Your task to perform on an android device: open sync settings in chrome Image 0: 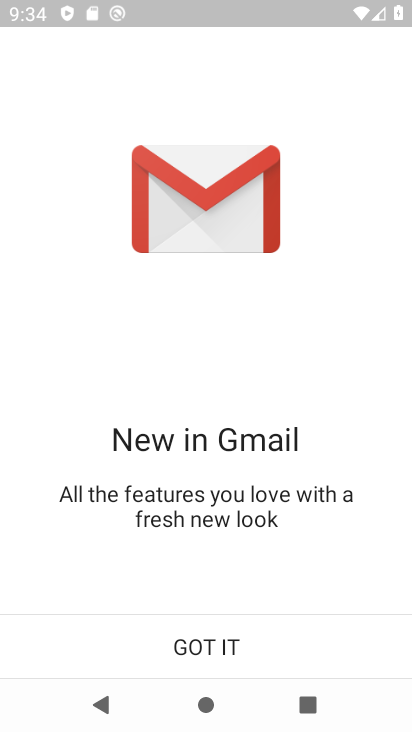
Step 0: press back button
Your task to perform on an android device: open sync settings in chrome Image 1: 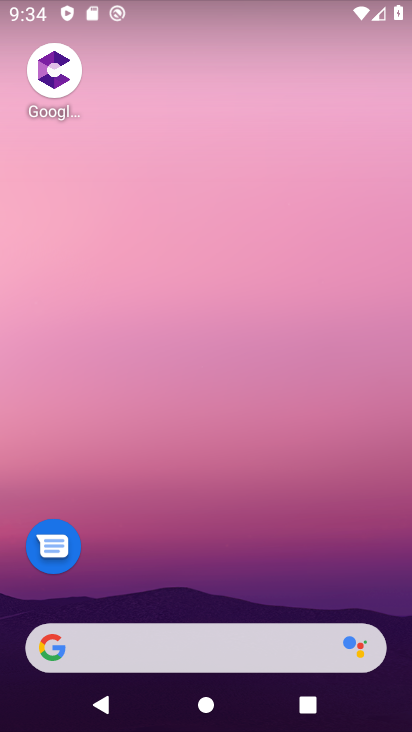
Step 1: drag from (205, 568) to (289, 69)
Your task to perform on an android device: open sync settings in chrome Image 2: 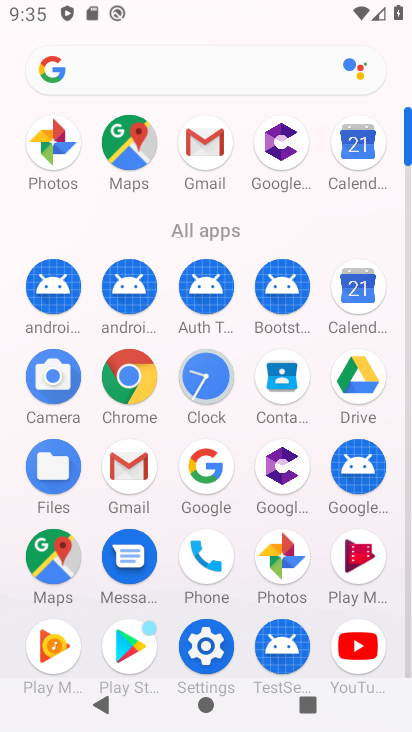
Step 2: click (128, 385)
Your task to perform on an android device: open sync settings in chrome Image 3: 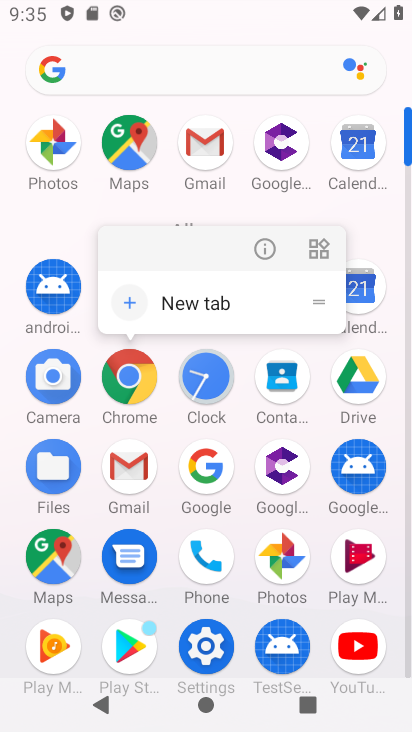
Step 3: click (129, 384)
Your task to perform on an android device: open sync settings in chrome Image 4: 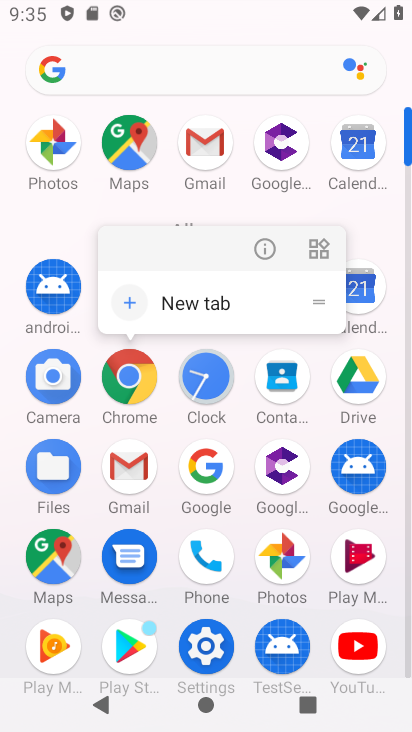
Step 4: click (131, 381)
Your task to perform on an android device: open sync settings in chrome Image 5: 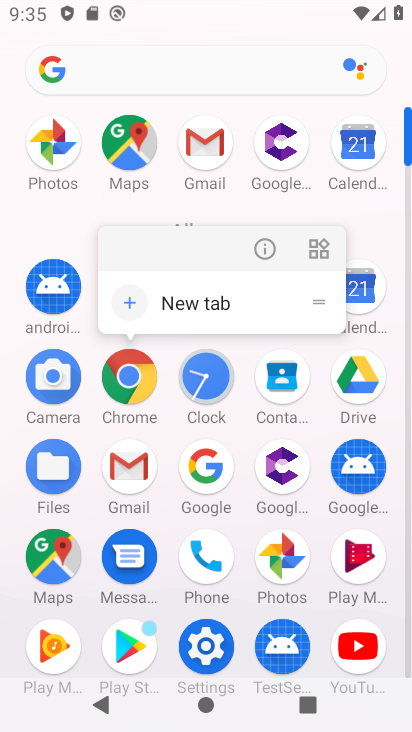
Step 5: click (138, 383)
Your task to perform on an android device: open sync settings in chrome Image 6: 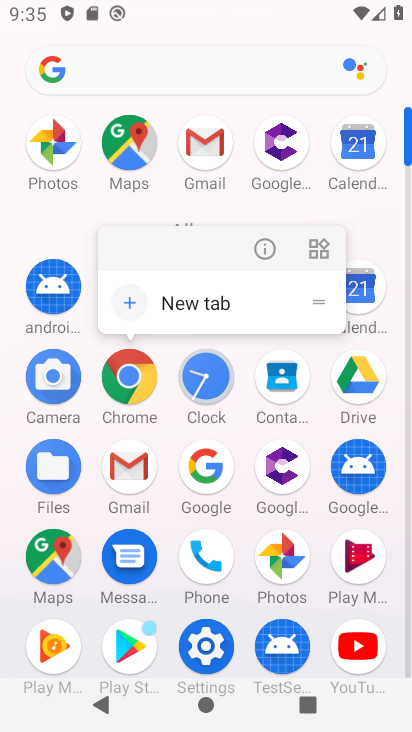
Step 6: click (138, 395)
Your task to perform on an android device: open sync settings in chrome Image 7: 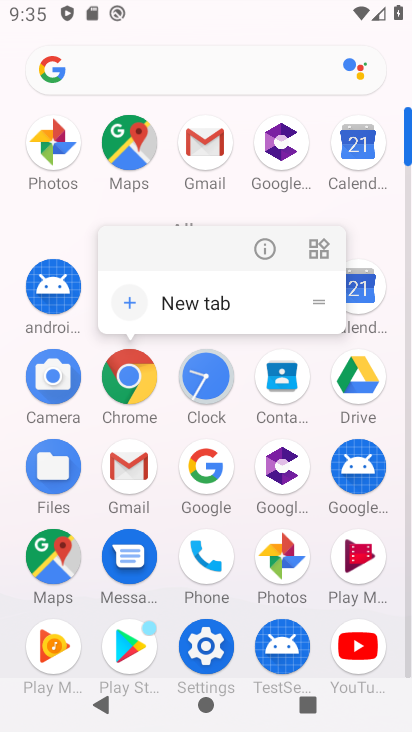
Step 7: click (127, 379)
Your task to perform on an android device: open sync settings in chrome Image 8: 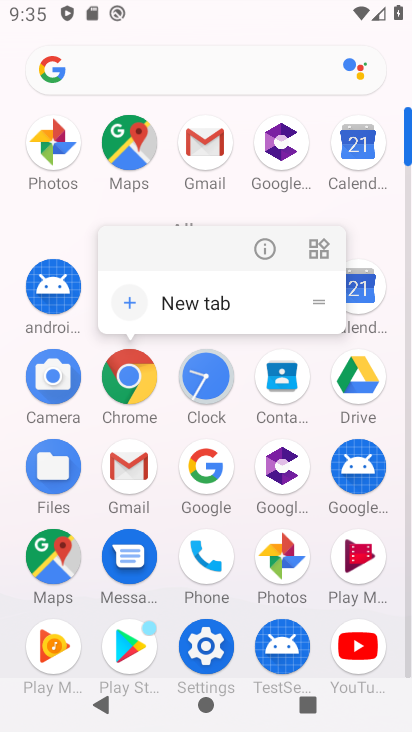
Step 8: click (170, 381)
Your task to perform on an android device: open sync settings in chrome Image 9: 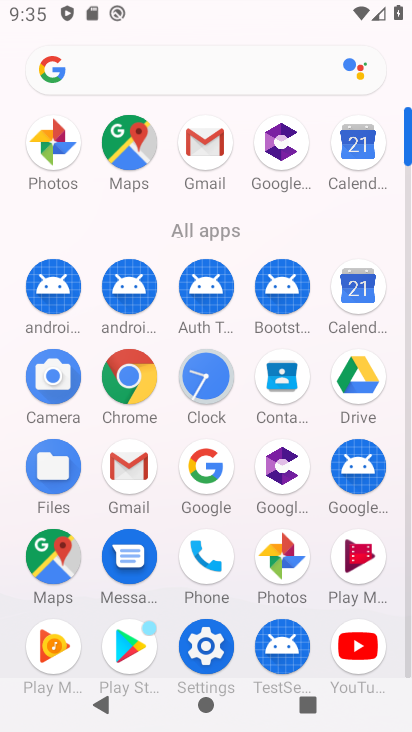
Step 9: click (140, 378)
Your task to perform on an android device: open sync settings in chrome Image 10: 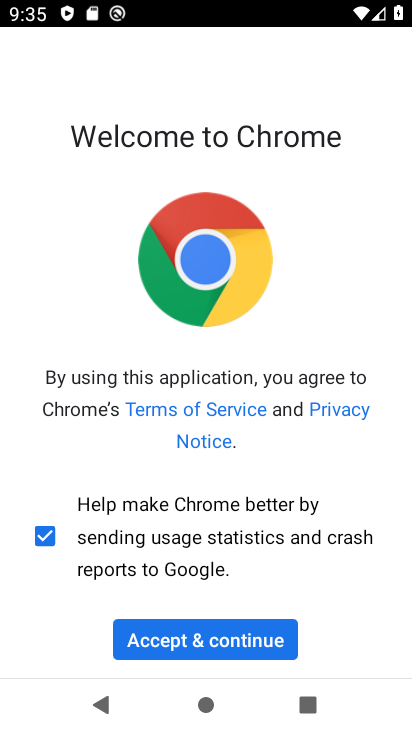
Step 10: click (233, 638)
Your task to perform on an android device: open sync settings in chrome Image 11: 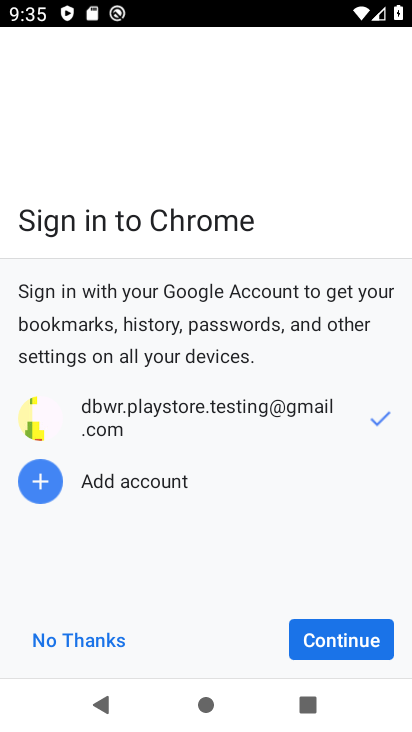
Step 11: click (339, 635)
Your task to perform on an android device: open sync settings in chrome Image 12: 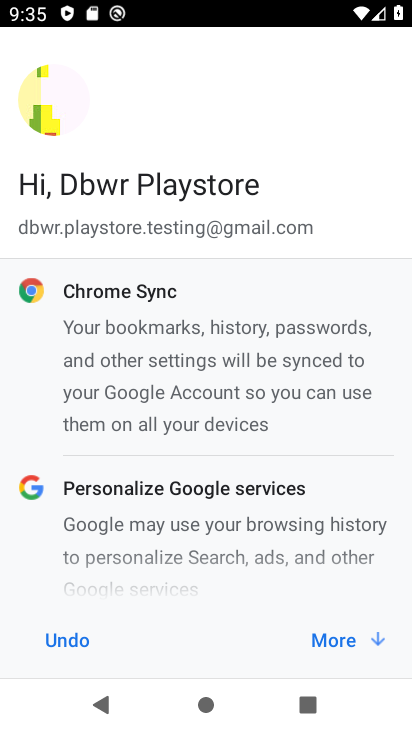
Step 12: click (330, 647)
Your task to perform on an android device: open sync settings in chrome Image 13: 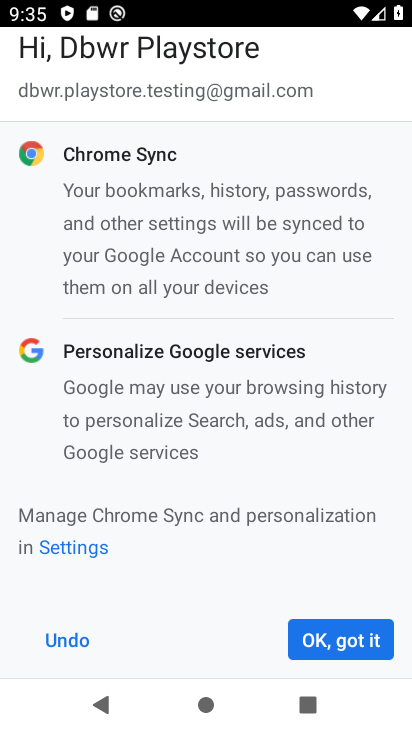
Step 13: click (353, 657)
Your task to perform on an android device: open sync settings in chrome Image 14: 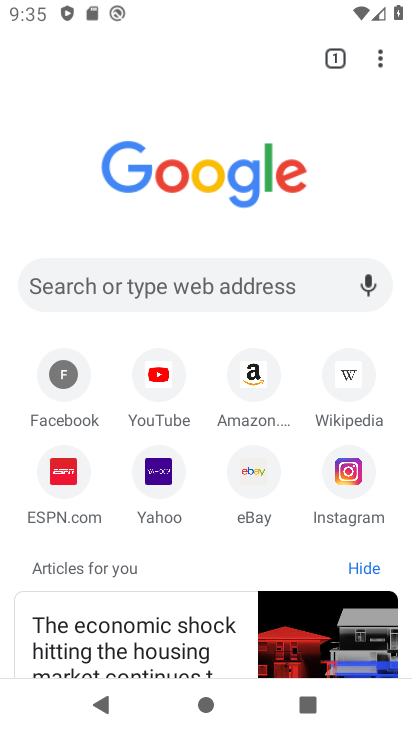
Step 14: click (397, 66)
Your task to perform on an android device: open sync settings in chrome Image 15: 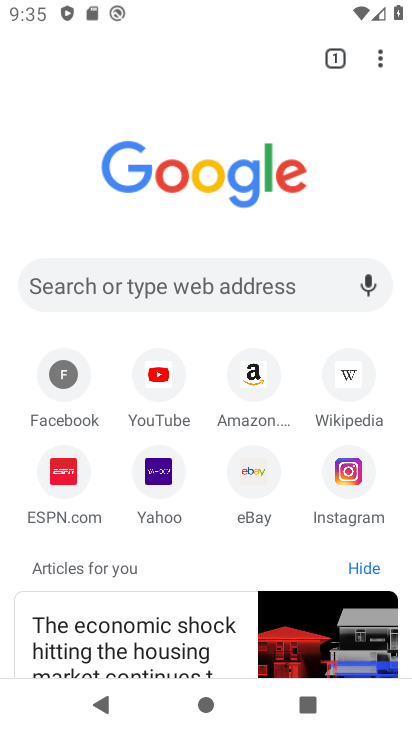
Step 15: drag from (380, 61) to (282, 499)
Your task to perform on an android device: open sync settings in chrome Image 16: 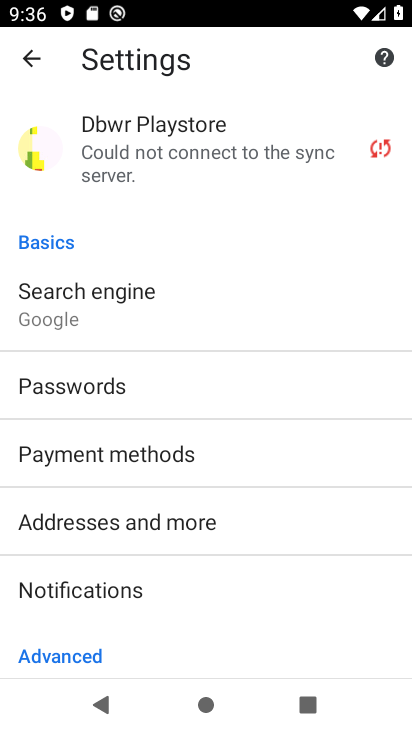
Step 16: click (249, 200)
Your task to perform on an android device: open sync settings in chrome Image 17: 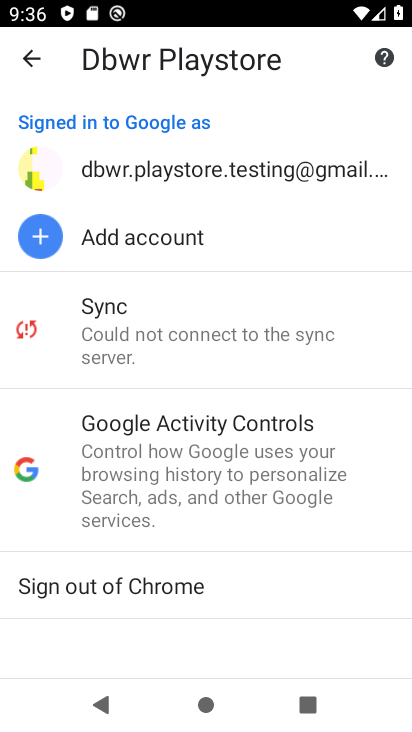
Step 17: click (227, 329)
Your task to perform on an android device: open sync settings in chrome Image 18: 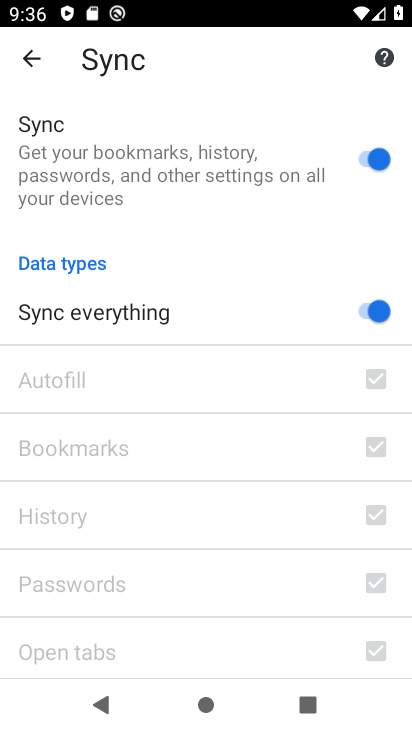
Step 18: task complete